Your task to perform on an android device: What's the price of the Samsung TV? Image 0: 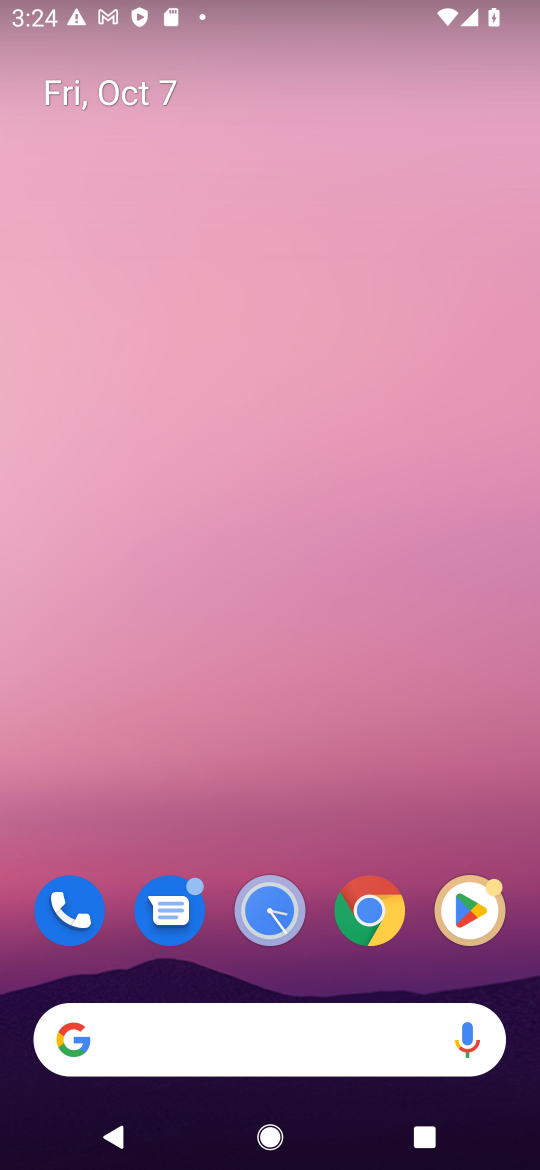
Step 0: click (253, 1039)
Your task to perform on an android device: What's the price of the Samsung TV? Image 1: 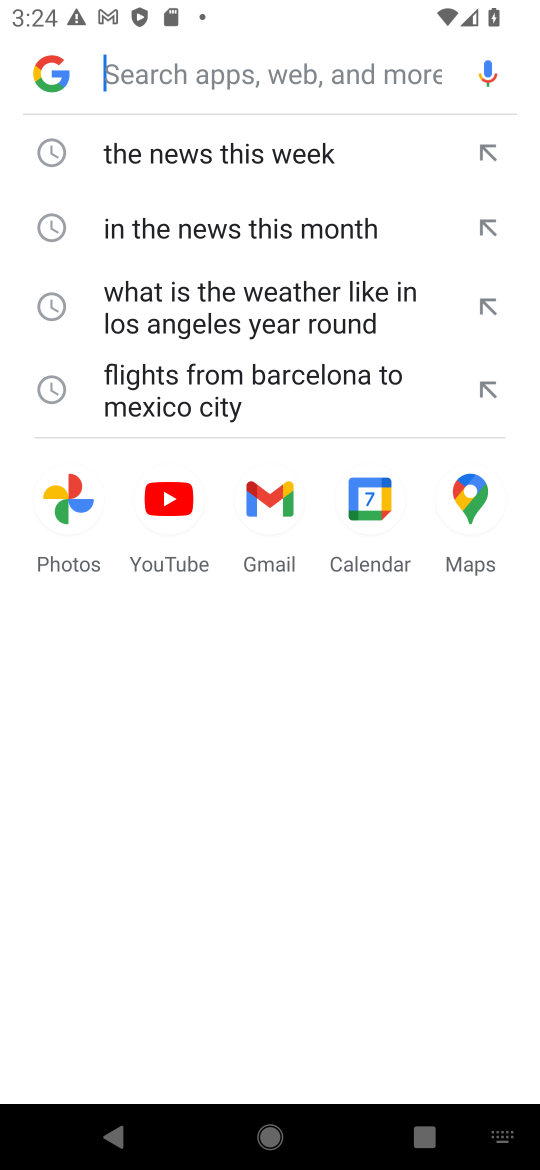
Step 1: type " price of the Samsung TV"
Your task to perform on an android device: What's the price of the Samsung TV? Image 2: 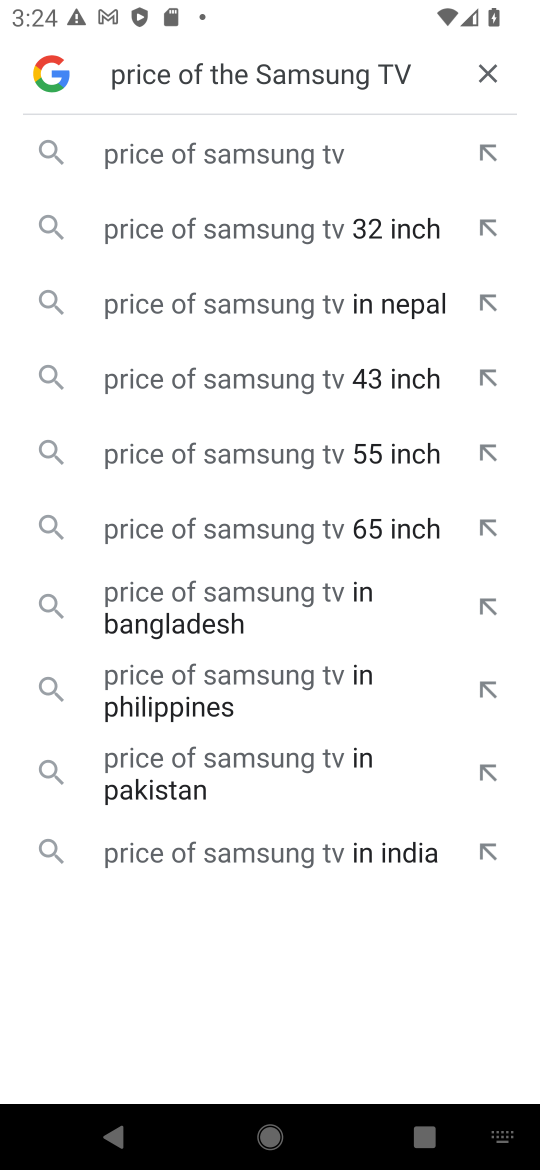
Step 2: click (256, 156)
Your task to perform on an android device: What's the price of the Samsung TV? Image 3: 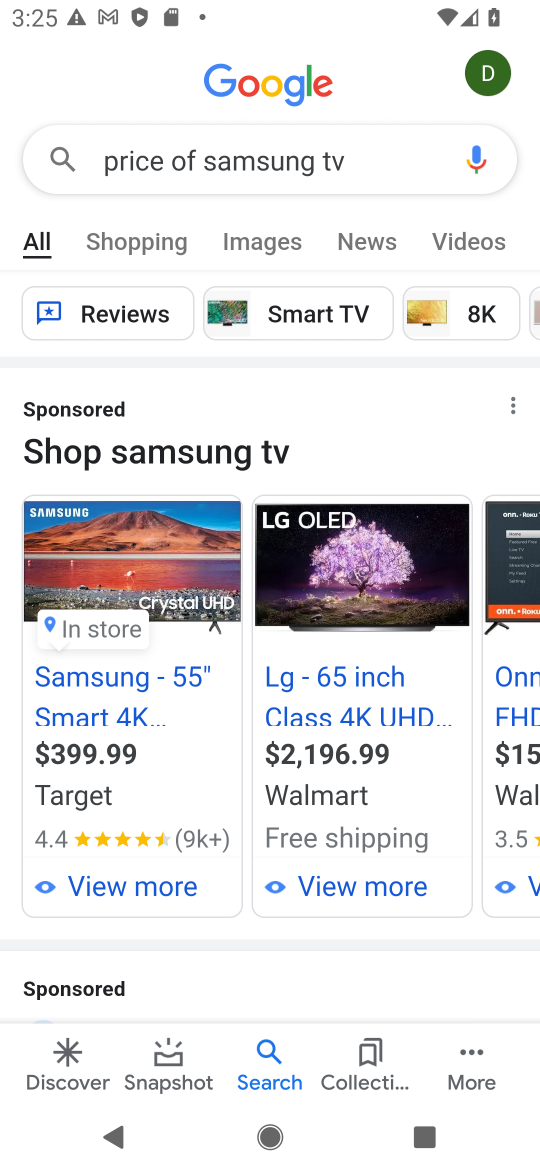
Step 3: task complete